Your task to perform on an android device: Open the map Image 0: 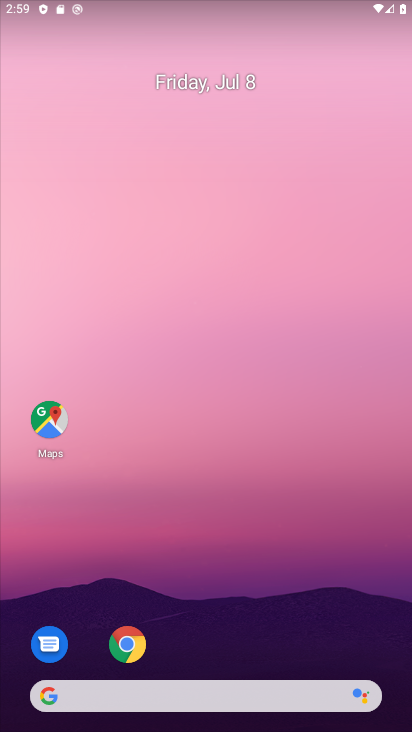
Step 0: drag from (127, 677) to (226, 190)
Your task to perform on an android device: Open the map Image 1: 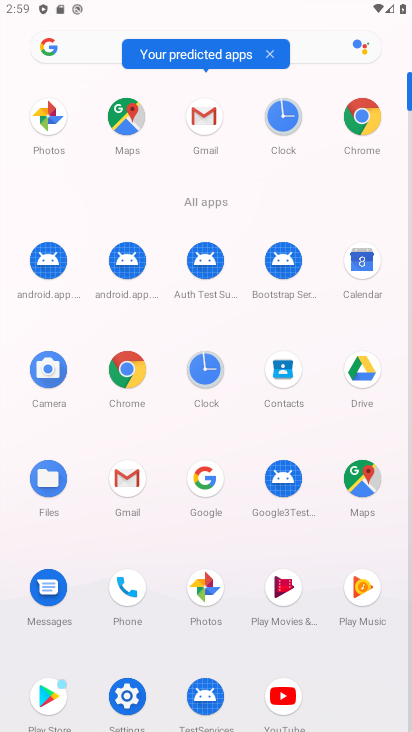
Step 1: click (363, 489)
Your task to perform on an android device: Open the map Image 2: 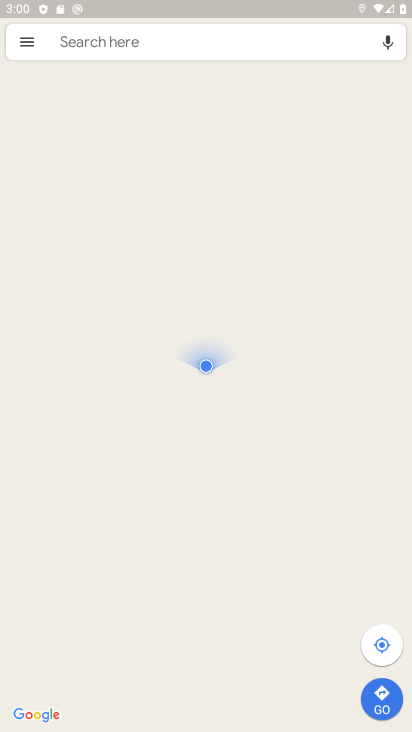
Step 2: task complete